Your task to perform on an android device: search for outdoor chairs on article.com Image 0: 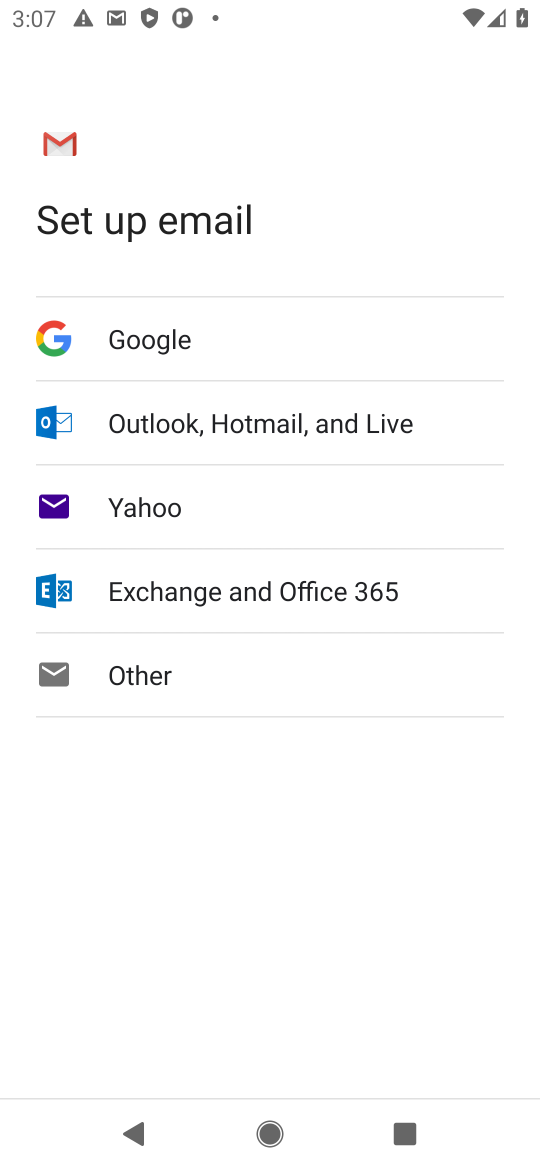
Step 0: press home button
Your task to perform on an android device: search for outdoor chairs on article.com Image 1: 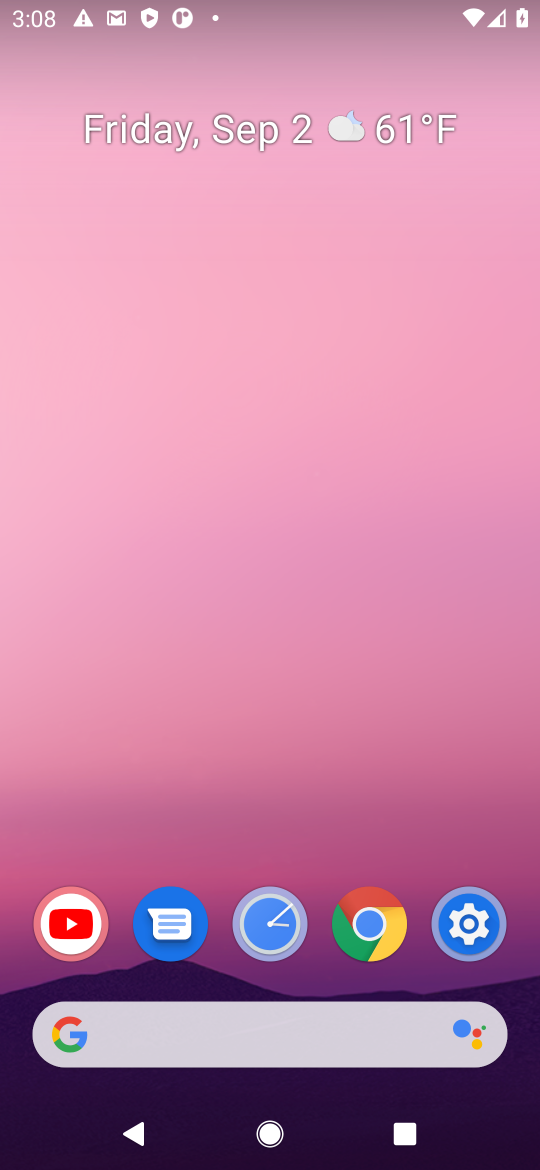
Step 1: click (347, 1023)
Your task to perform on an android device: search for outdoor chairs on article.com Image 2: 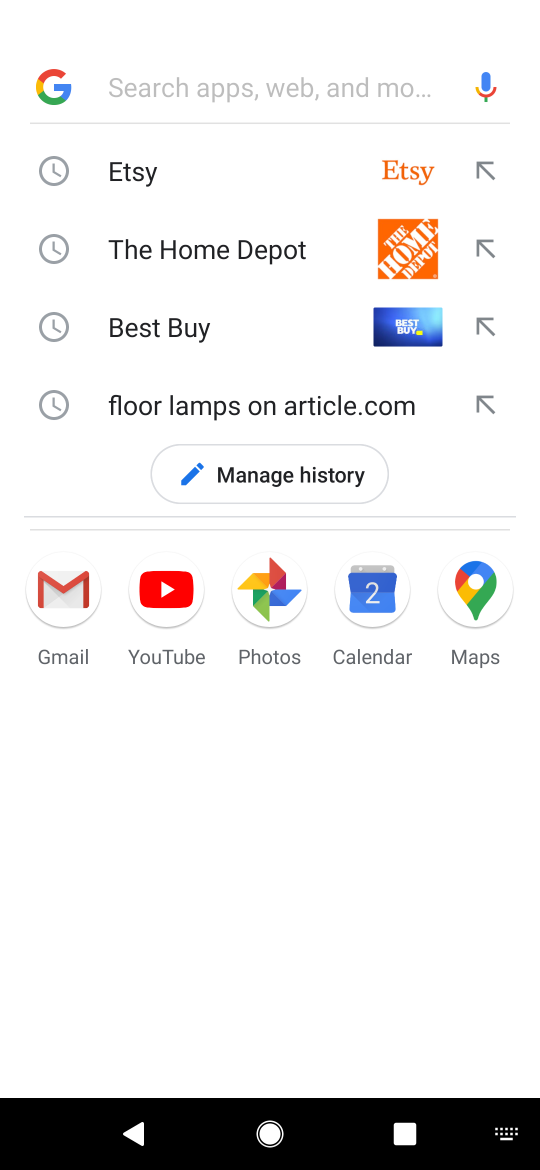
Step 2: press enter
Your task to perform on an android device: search for outdoor chairs on article.com Image 3: 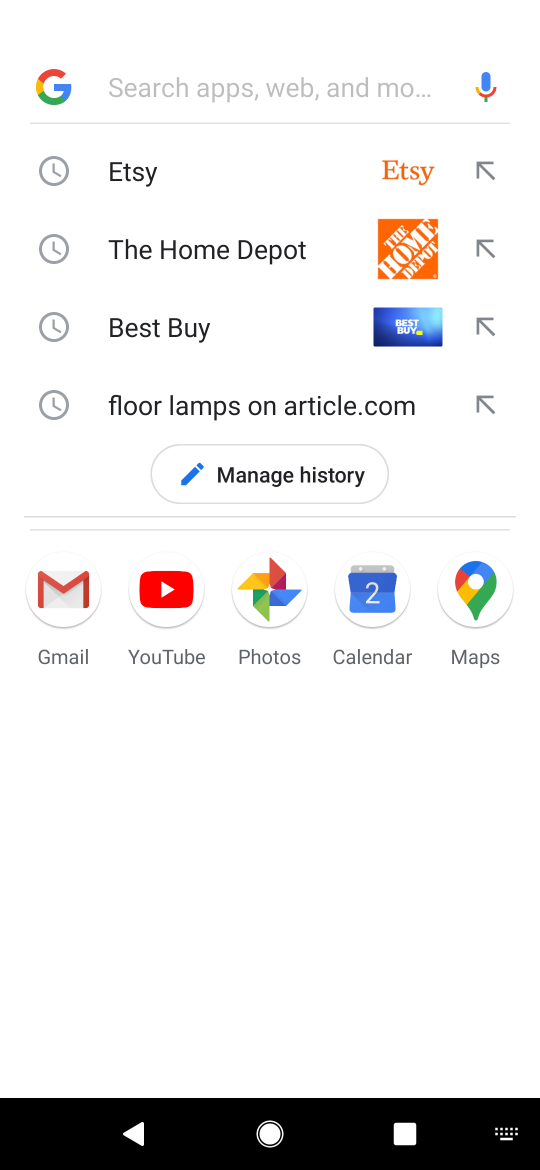
Step 3: type "article.com"
Your task to perform on an android device: search for outdoor chairs on article.com Image 4: 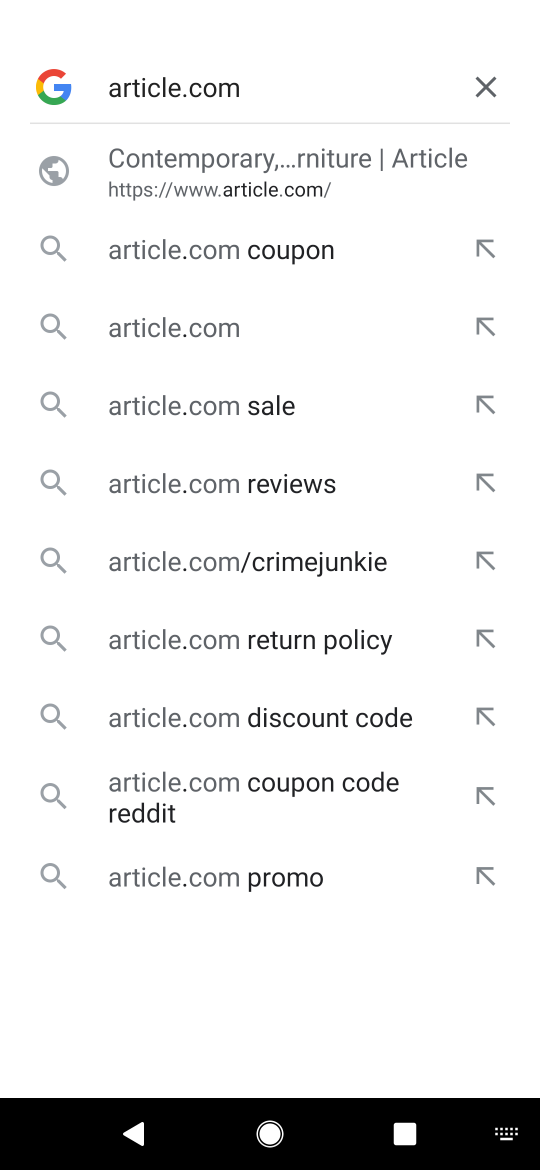
Step 4: click (283, 181)
Your task to perform on an android device: search for outdoor chairs on article.com Image 5: 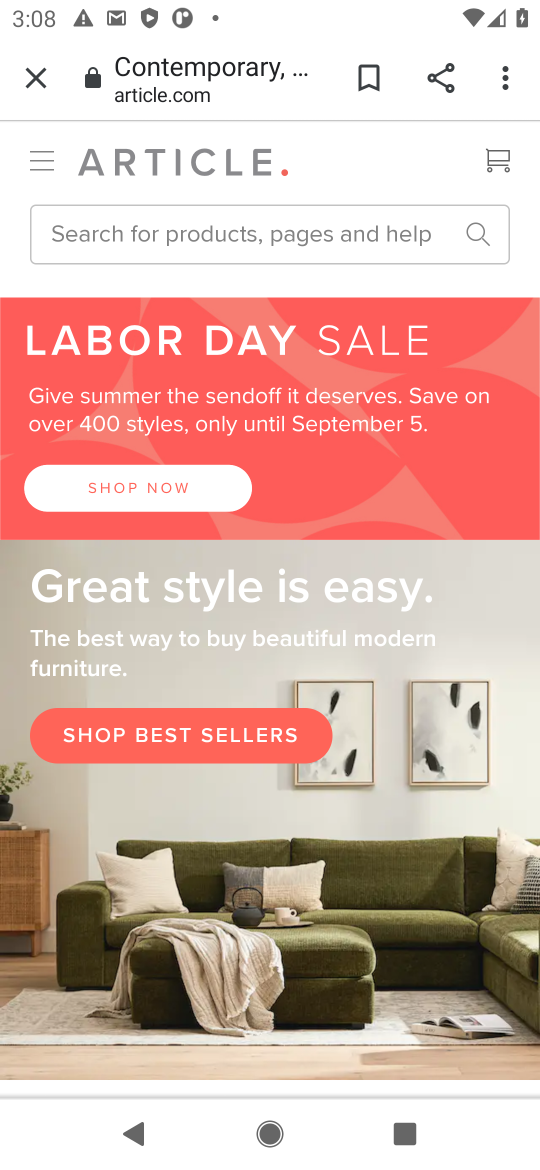
Step 5: click (335, 228)
Your task to perform on an android device: search for outdoor chairs on article.com Image 6: 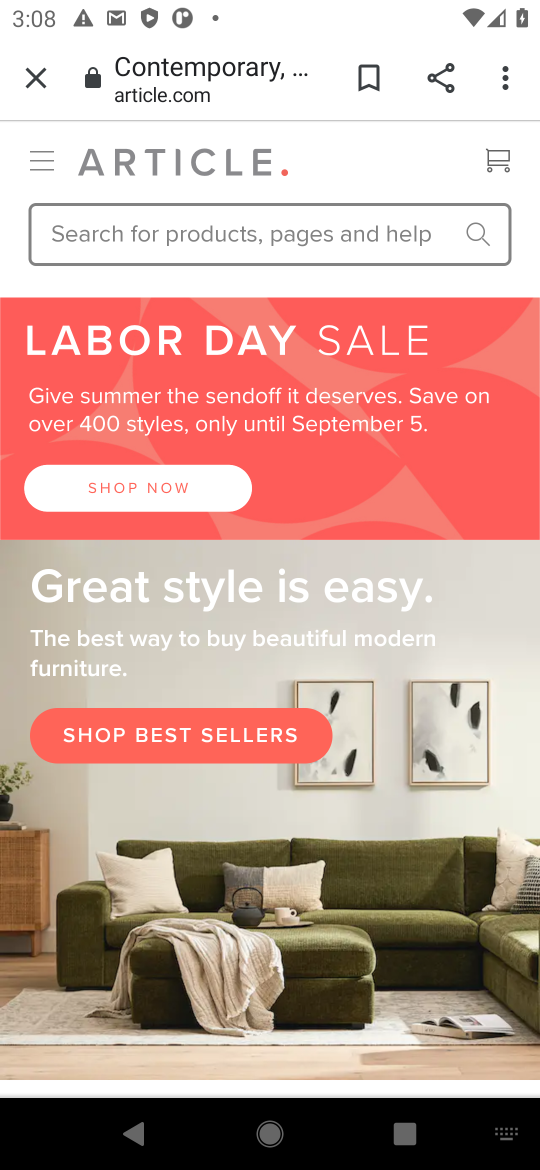
Step 6: type "outdoor chairs"
Your task to perform on an android device: search for outdoor chairs on article.com Image 7: 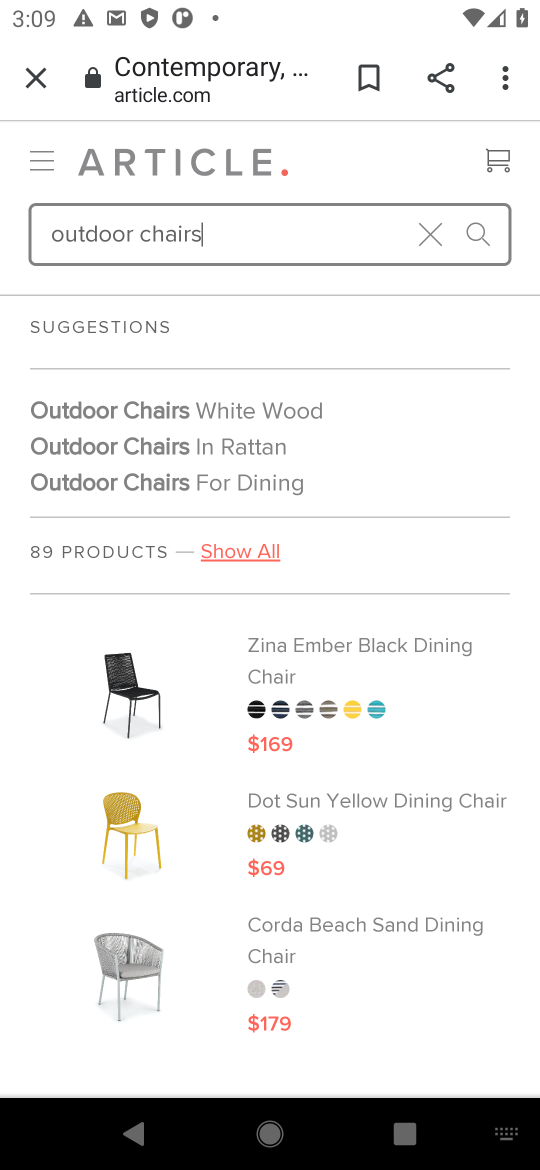
Step 7: task complete